Your task to perform on an android device: Open Android settings Image 0: 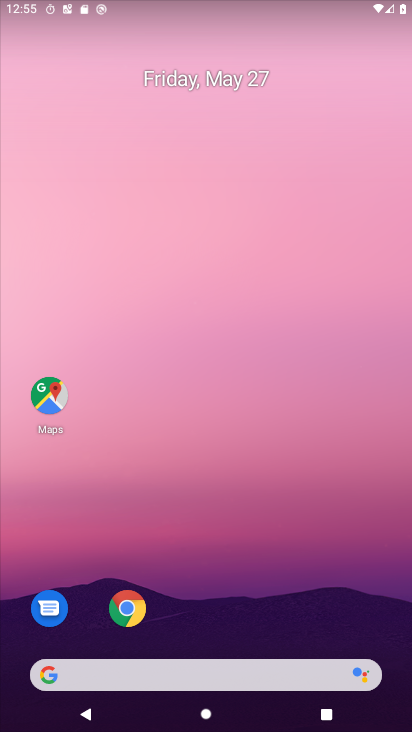
Step 0: click (335, 188)
Your task to perform on an android device: Open Android settings Image 1: 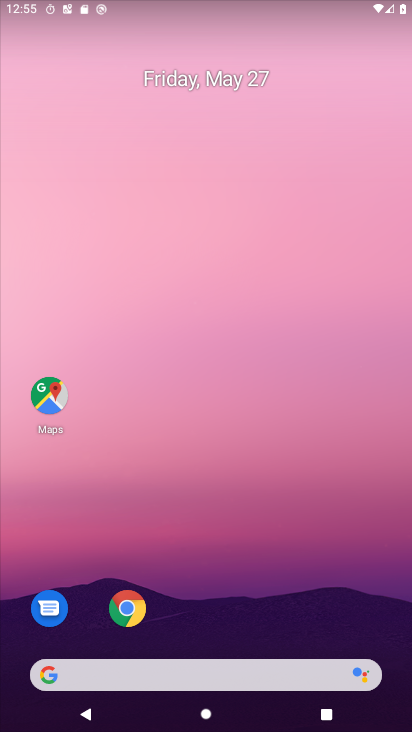
Step 1: drag from (403, 679) to (351, 266)
Your task to perform on an android device: Open Android settings Image 2: 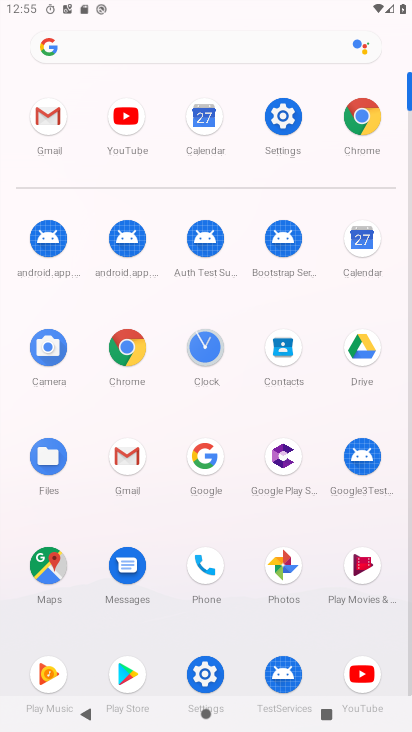
Step 2: click (278, 118)
Your task to perform on an android device: Open Android settings Image 3: 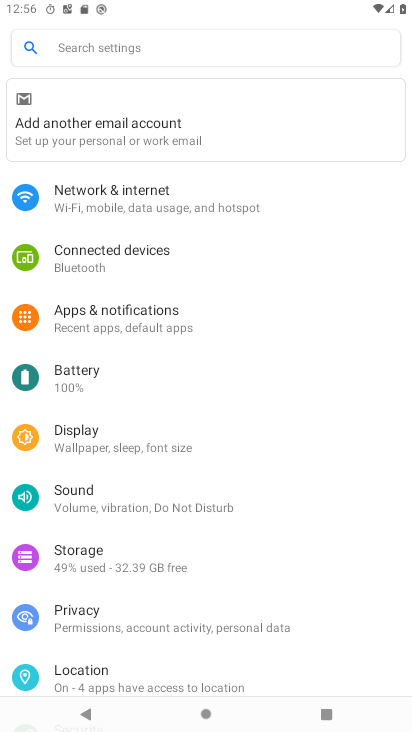
Step 3: task complete